Your task to perform on an android device: turn on wifi Image 0: 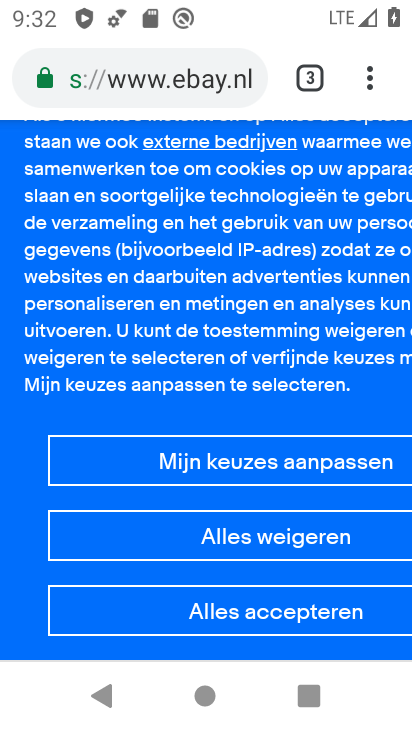
Step 0: press home button
Your task to perform on an android device: turn on wifi Image 1: 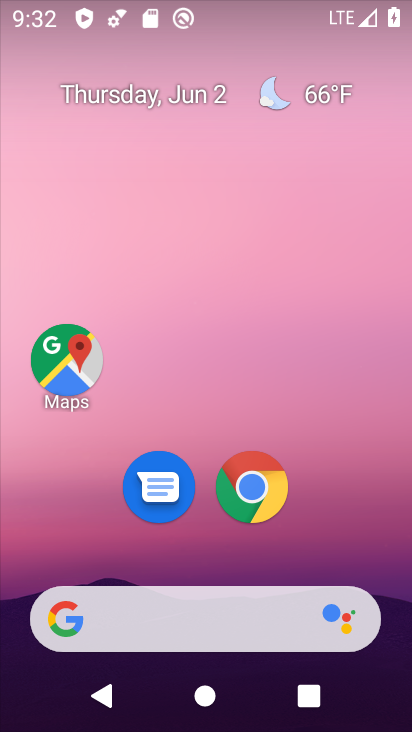
Step 1: drag from (225, 722) to (178, 59)
Your task to perform on an android device: turn on wifi Image 2: 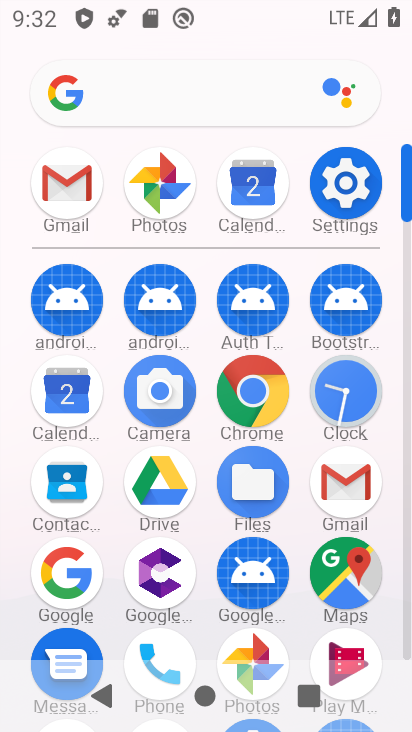
Step 2: click (336, 185)
Your task to perform on an android device: turn on wifi Image 3: 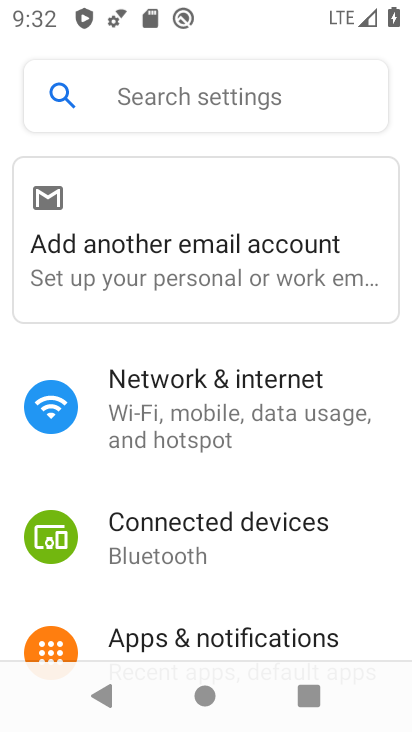
Step 3: click (181, 409)
Your task to perform on an android device: turn on wifi Image 4: 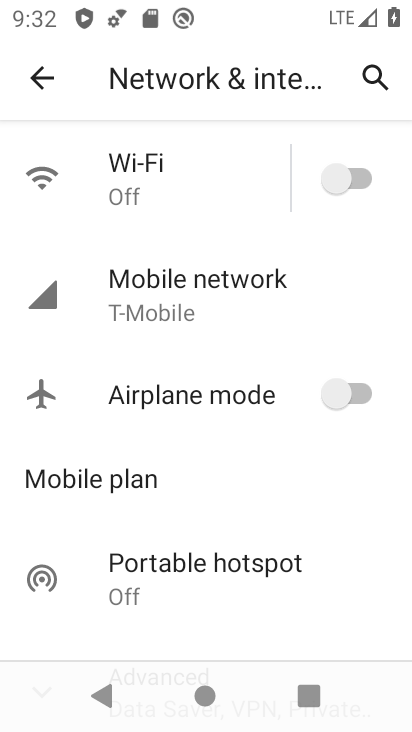
Step 4: click (353, 172)
Your task to perform on an android device: turn on wifi Image 5: 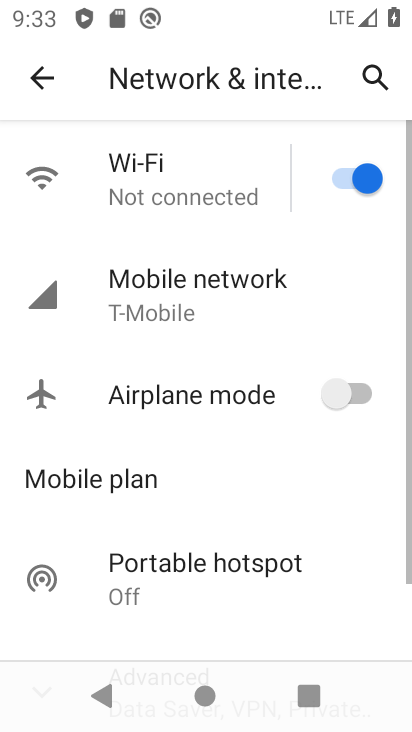
Step 5: task complete